Your task to perform on an android device: Go to Reddit.com Image 0: 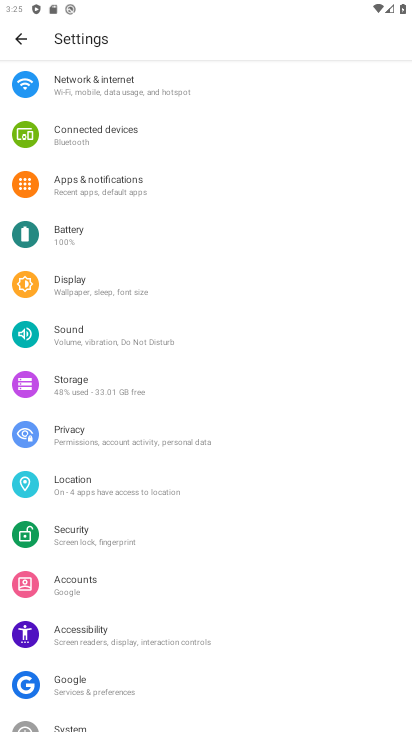
Step 0: press home button
Your task to perform on an android device: Go to Reddit.com Image 1: 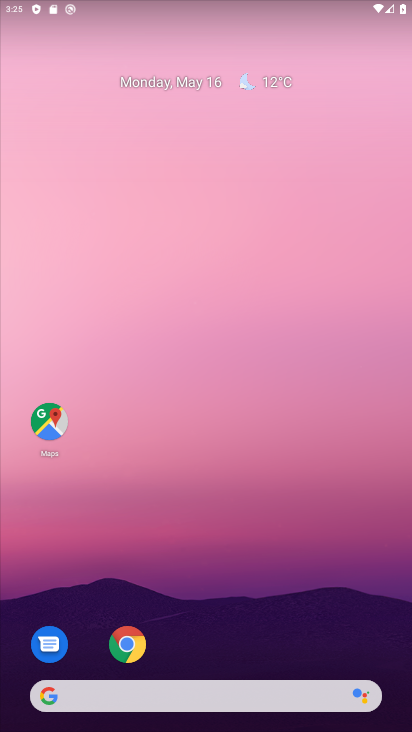
Step 1: click (121, 643)
Your task to perform on an android device: Go to Reddit.com Image 2: 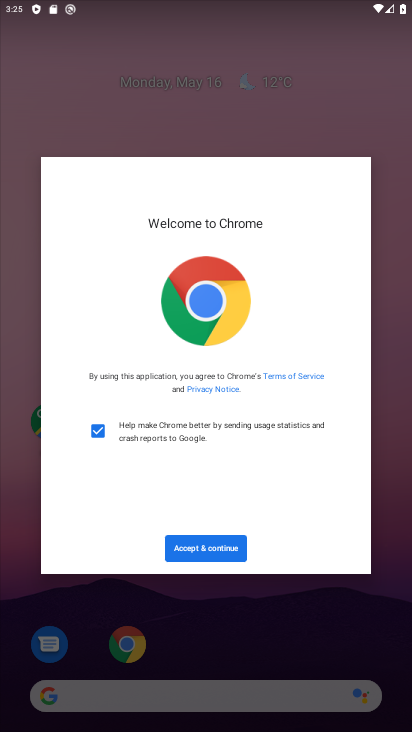
Step 2: click (216, 550)
Your task to perform on an android device: Go to Reddit.com Image 3: 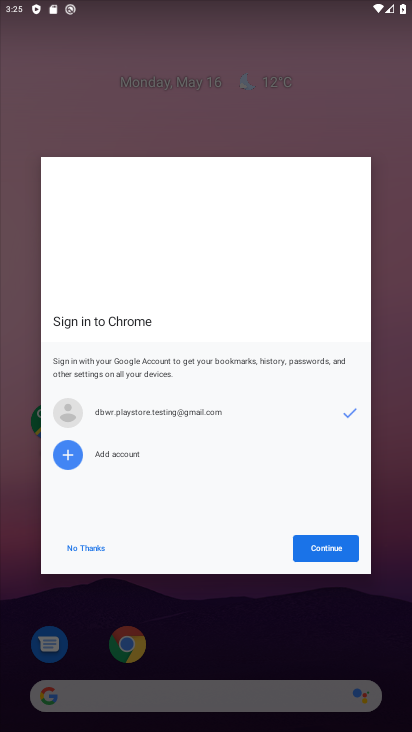
Step 3: click (319, 547)
Your task to perform on an android device: Go to Reddit.com Image 4: 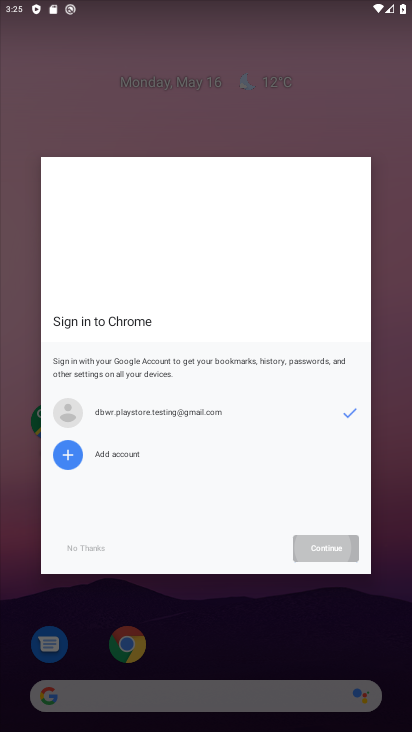
Step 4: click (319, 547)
Your task to perform on an android device: Go to Reddit.com Image 5: 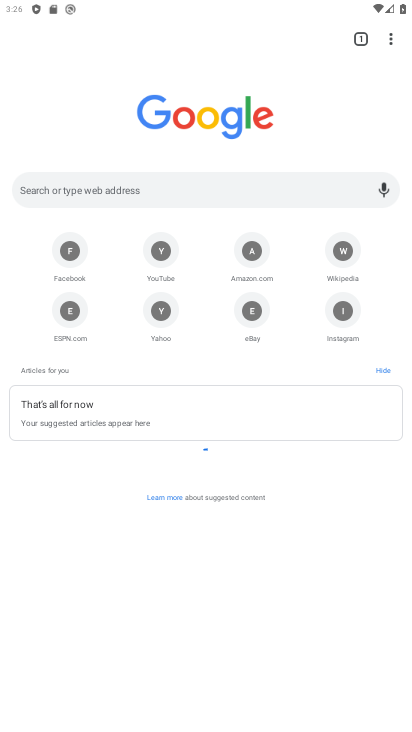
Step 5: click (196, 202)
Your task to perform on an android device: Go to Reddit.com Image 6: 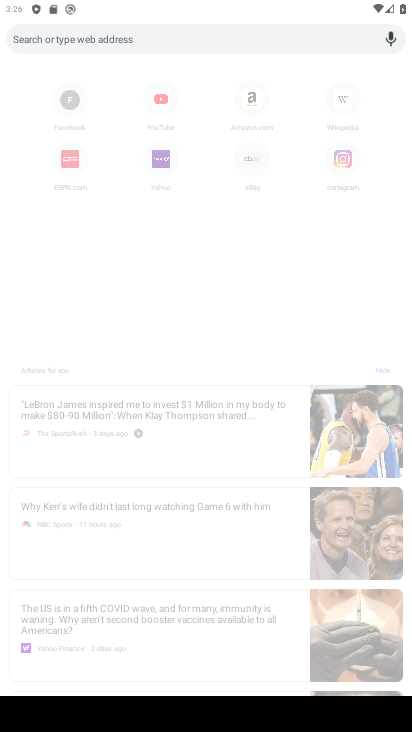
Step 6: type "Reddit.com"
Your task to perform on an android device: Go to Reddit.com Image 7: 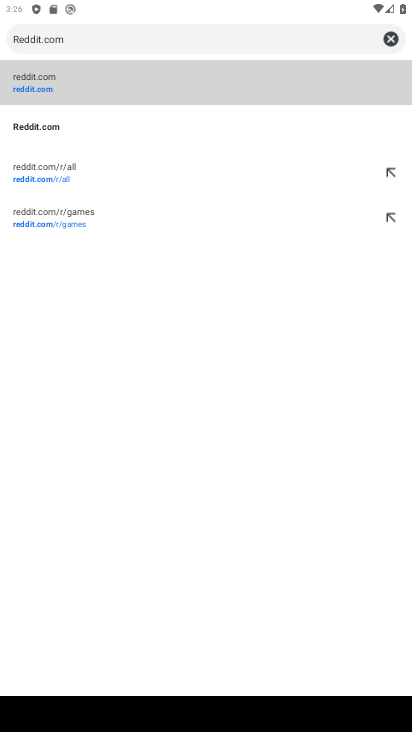
Step 7: click (83, 86)
Your task to perform on an android device: Go to Reddit.com Image 8: 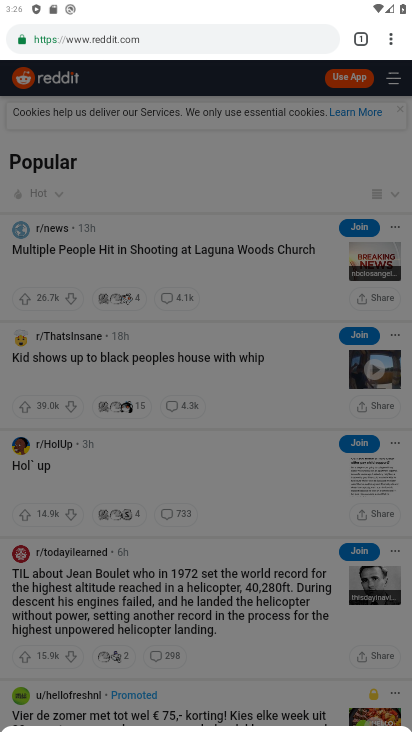
Step 8: task complete